Your task to perform on an android device: Open location settings Image 0: 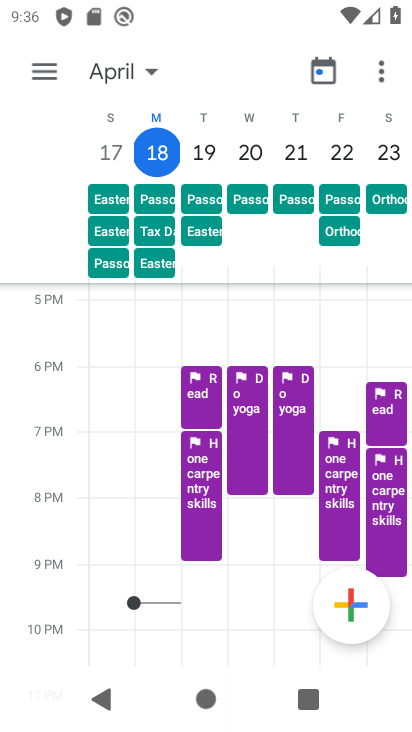
Step 0: press home button
Your task to perform on an android device: Open location settings Image 1: 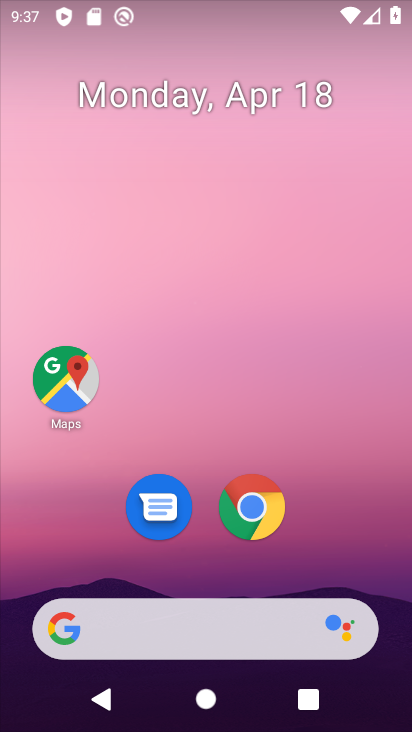
Step 1: drag from (212, 584) to (197, 11)
Your task to perform on an android device: Open location settings Image 2: 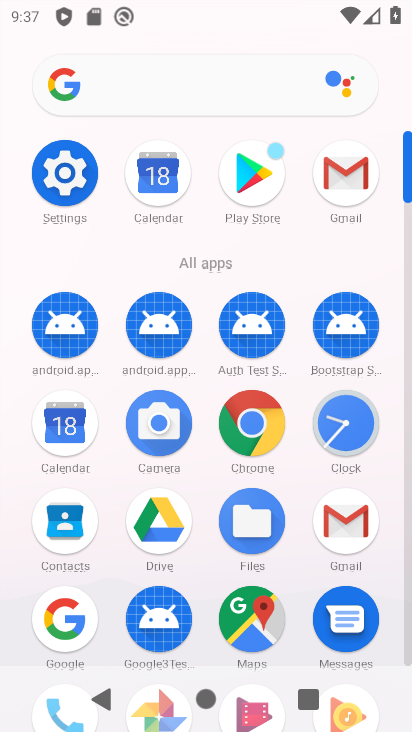
Step 2: click (46, 170)
Your task to perform on an android device: Open location settings Image 3: 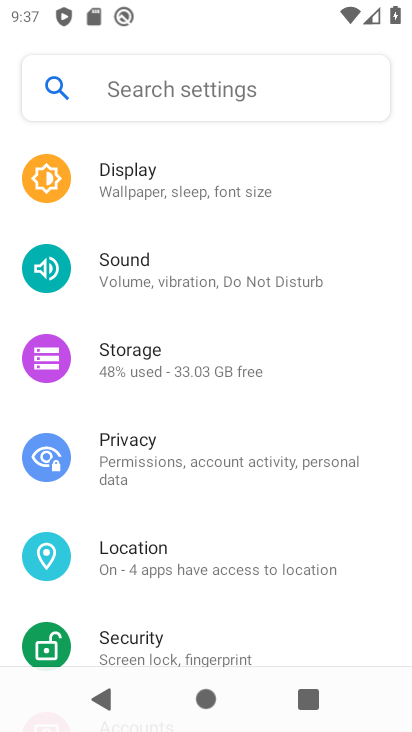
Step 3: click (141, 546)
Your task to perform on an android device: Open location settings Image 4: 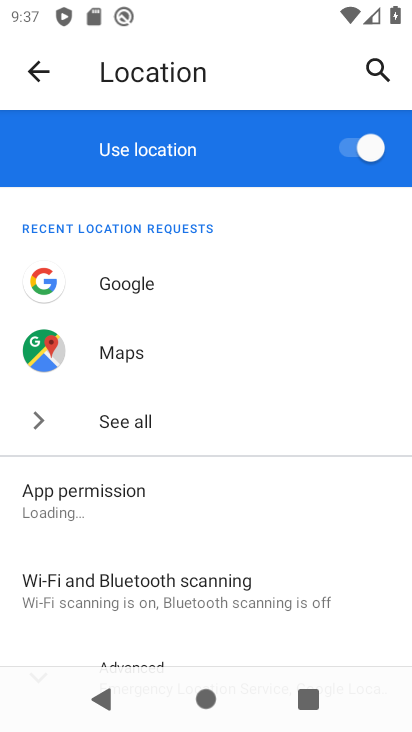
Step 4: drag from (165, 571) to (122, 110)
Your task to perform on an android device: Open location settings Image 5: 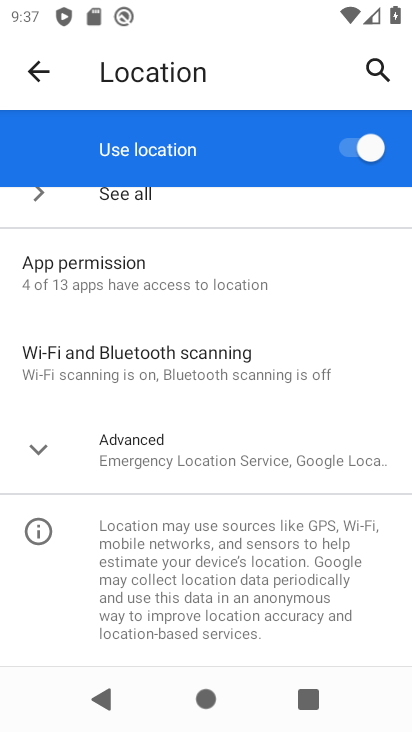
Step 5: click (141, 452)
Your task to perform on an android device: Open location settings Image 6: 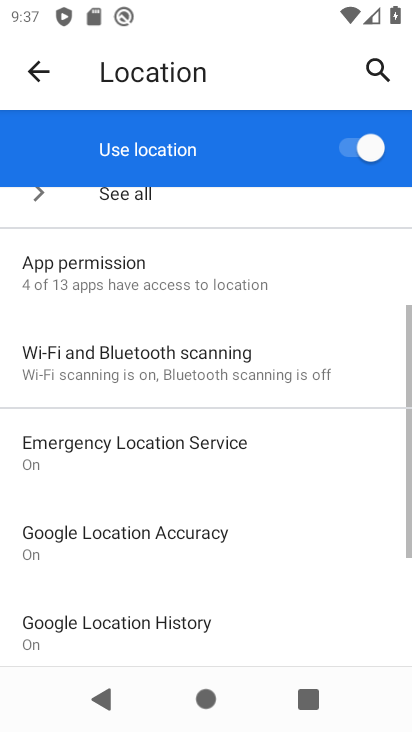
Step 6: task complete